Your task to perform on an android device: snooze an email in the gmail app Image 0: 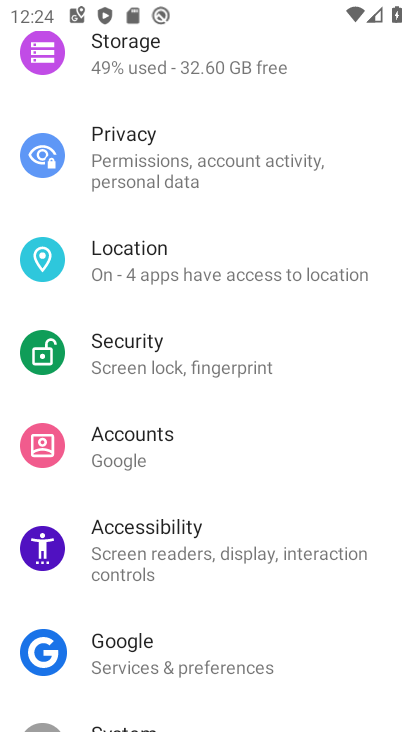
Step 0: press home button
Your task to perform on an android device: snooze an email in the gmail app Image 1: 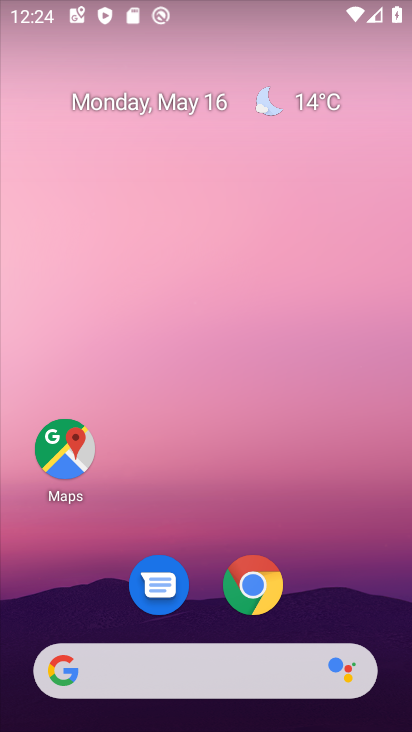
Step 1: drag from (247, 518) to (210, 17)
Your task to perform on an android device: snooze an email in the gmail app Image 2: 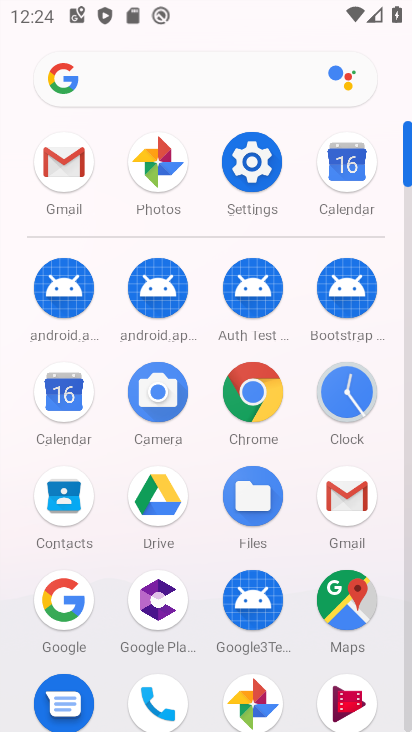
Step 2: click (59, 162)
Your task to perform on an android device: snooze an email in the gmail app Image 3: 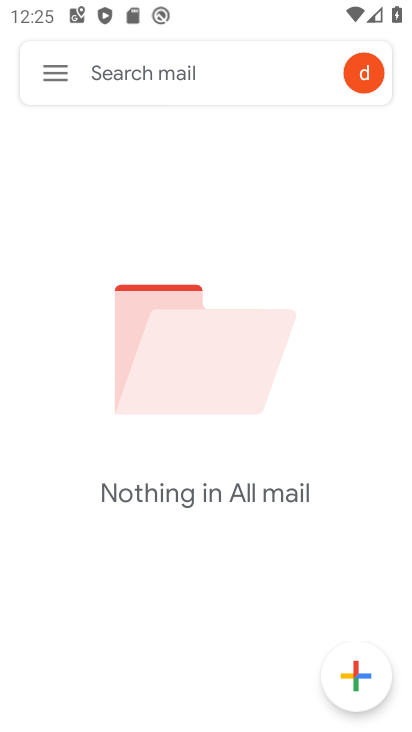
Step 3: task complete